Your task to perform on an android device: toggle notification dots Image 0: 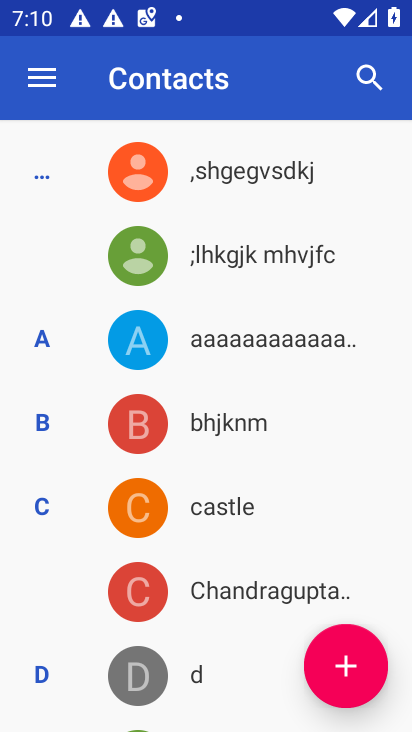
Step 0: press home button
Your task to perform on an android device: toggle notification dots Image 1: 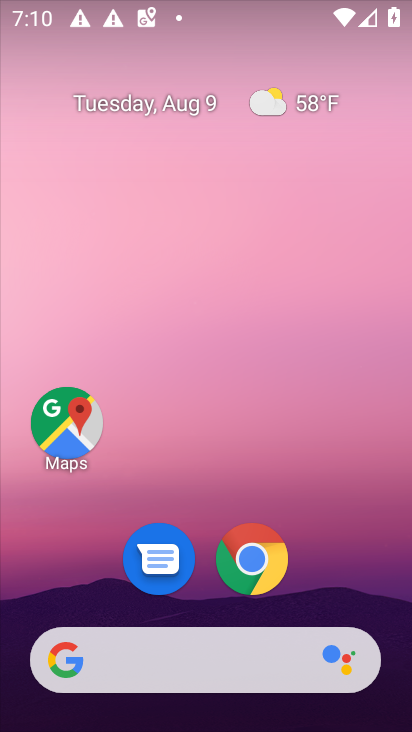
Step 1: drag from (193, 534) to (203, 81)
Your task to perform on an android device: toggle notification dots Image 2: 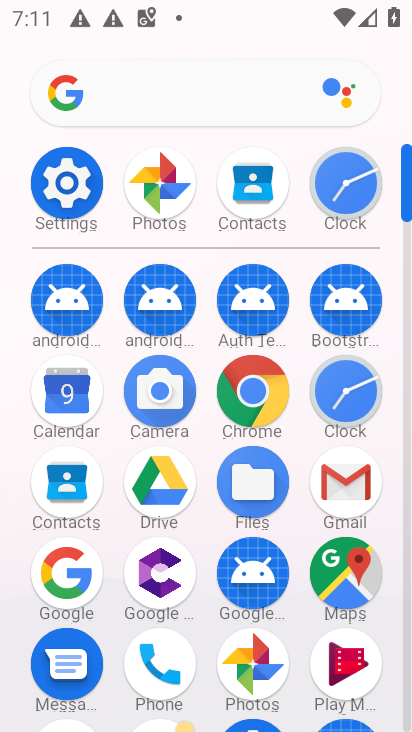
Step 2: click (62, 181)
Your task to perform on an android device: toggle notification dots Image 3: 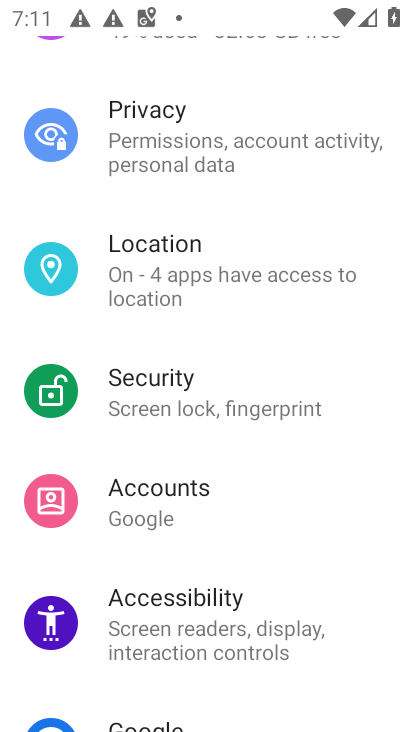
Step 3: drag from (223, 290) to (176, 731)
Your task to perform on an android device: toggle notification dots Image 4: 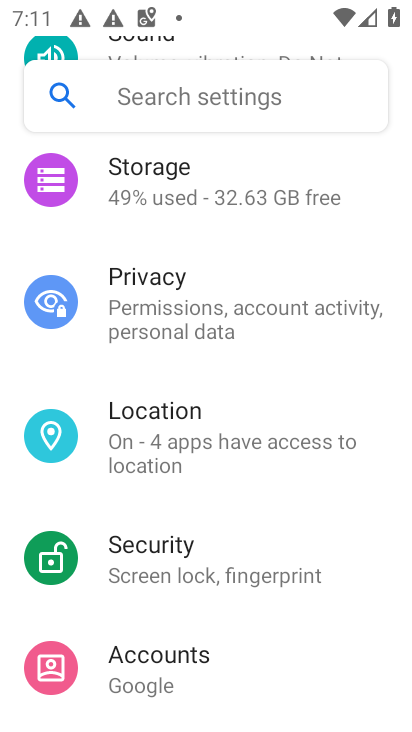
Step 4: drag from (253, 281) to (212, 550)
Your task to perform on an android device: toggle notification dots Image 5: 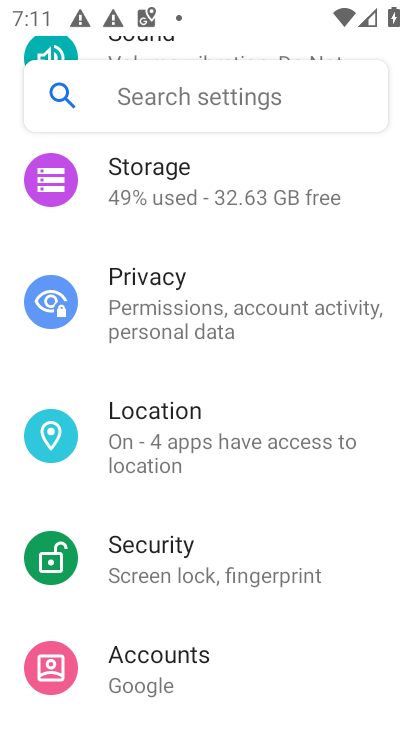
Step 5: drag from (236, 260) to (178, 571)
Your task to perform on an android device: toggle notification dots Image 6: 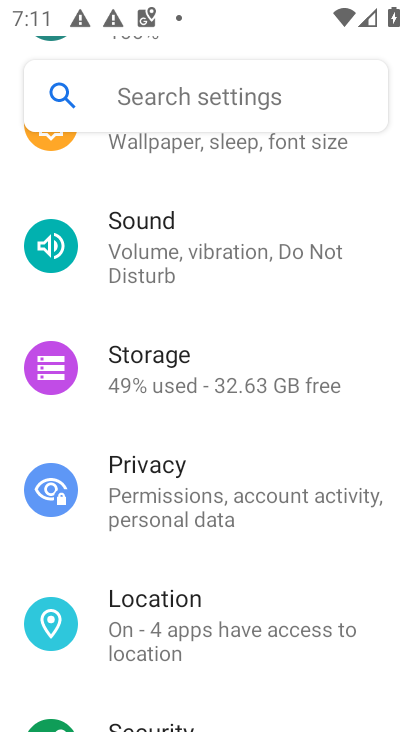
Step 6: drag from (252, 208) to (196, 542)
Your task to perform on an android device: toggle notification dots Image 7: 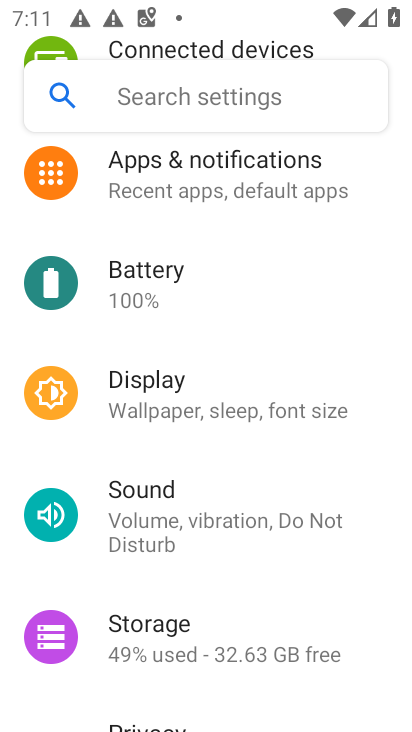
Step 7: click (171, 179)
Your task to perform on an android device: toggle notification dots Image 8: 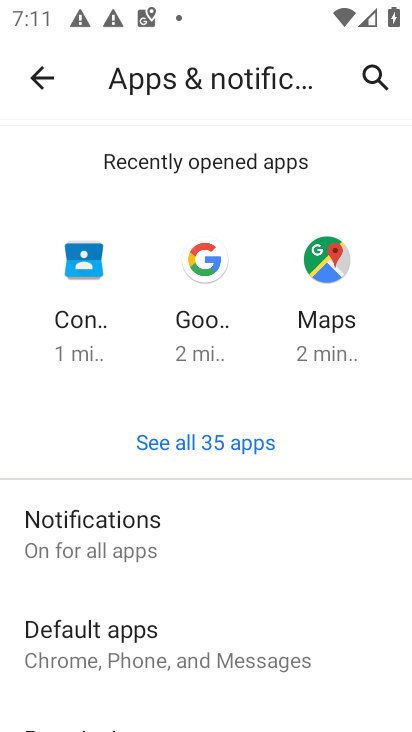
Step 8: click (131, 527)
Your task to perform on an android device: toggle notification dots Image 9: 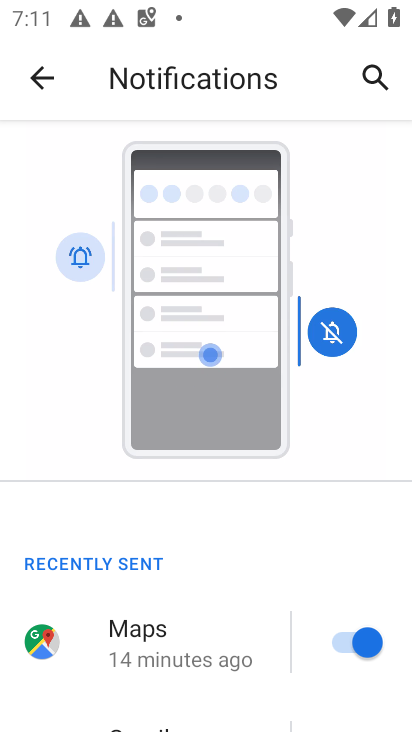
Step 9: click (216, 277)
Your task to perform on an android device: toggle notification dots Image 10: 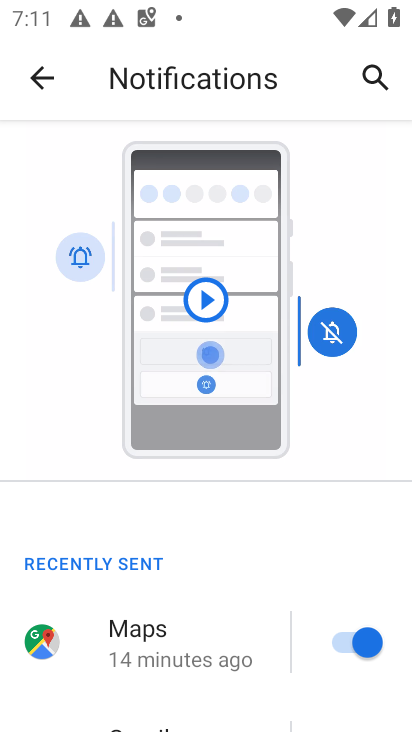
Step 10: drag from (204, 664) to (224, 343)
Your task to perform on an android device: toggle notification dots Image 11: 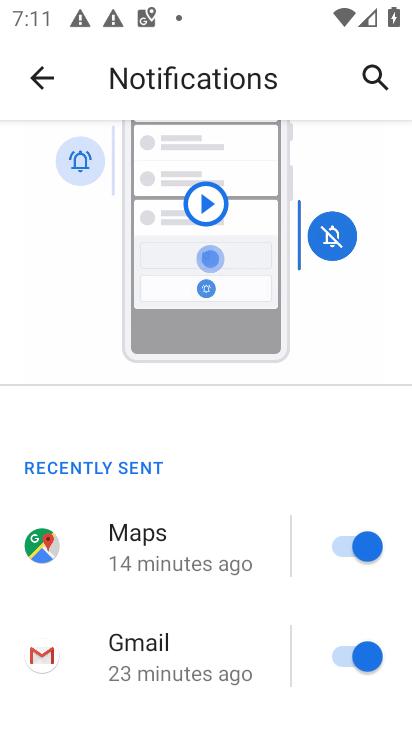
Step 11: drag from (177, 575) to (188, 323)
Your task to perform on an android device: toggle notification dots Image 12: 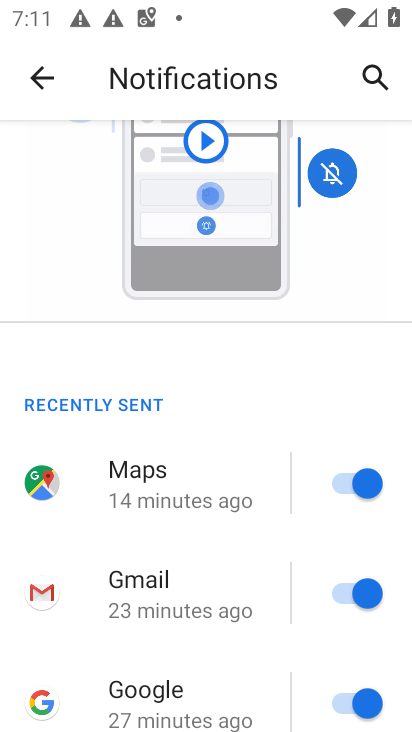
Step 12: drag from (189, 623) to (250, 97)
Your task to perform on an android device: toggle notification dots Image 13: 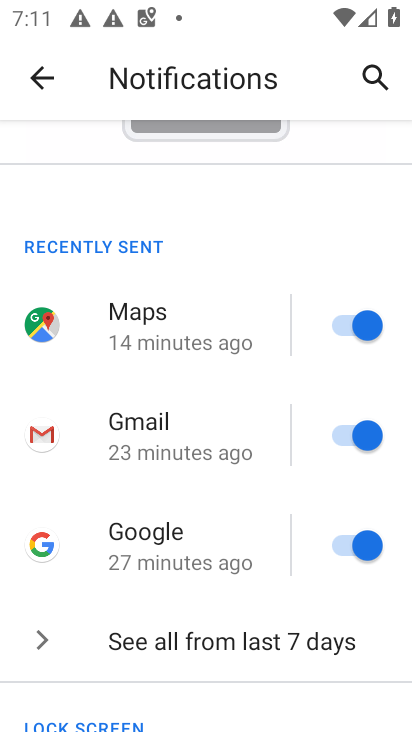
Step 13: drag from (194, 552) to (224, 213)
Your task to perform on an android device: toggle notification dots Image 14: 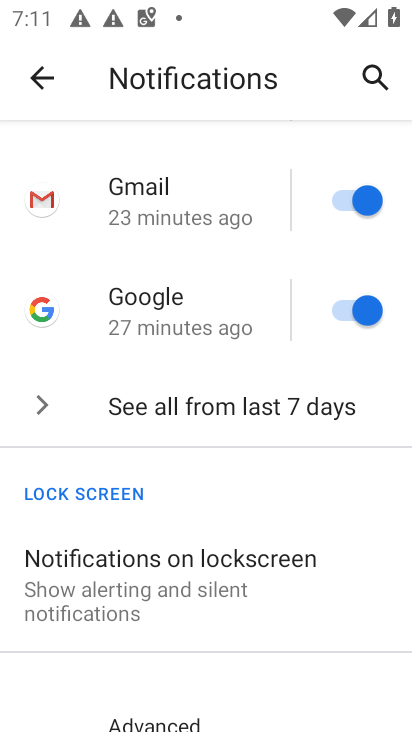
Step 14: drag from (181, 552) to (182, 355)
Your task to perform on an android device: toggle notification dots Image 15: 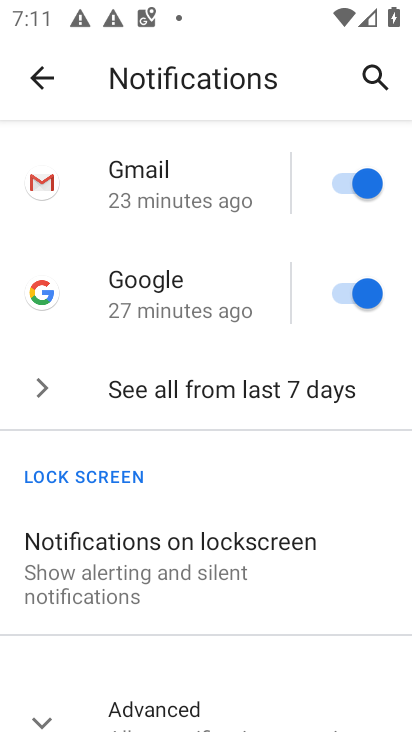
Step 15: drag from (189, 448) to (189, 383)
Your task to perform on an android device: toggle notification dots Image 16: 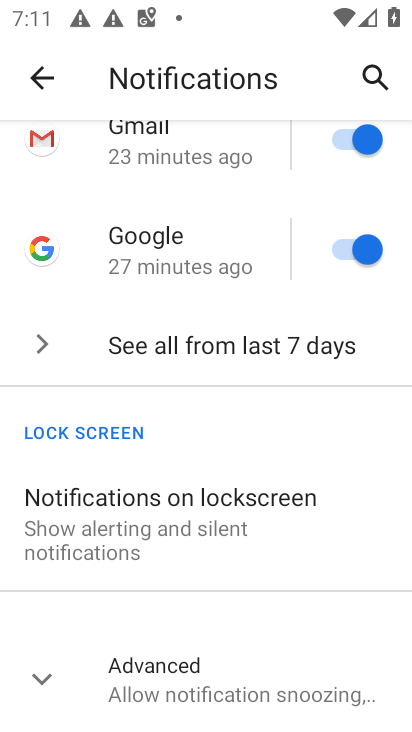
Step 16: drag from (134, 530) to (189, 204)
Your task to perform on an android device: toggle notification dots Image 17: 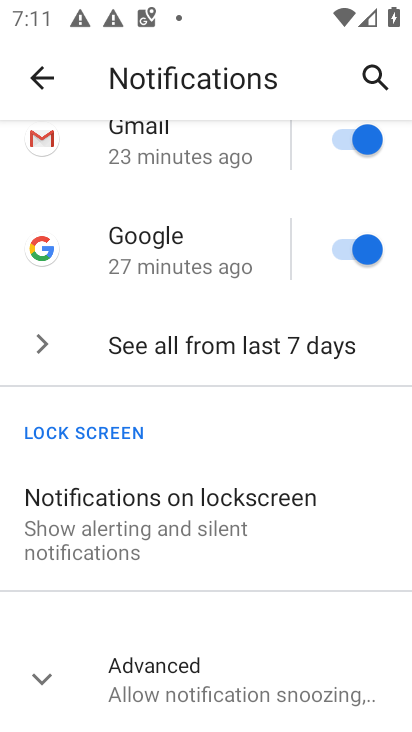
Step 17: click (143, 676)
Your task to perform on an android device: toggle notification dots Image 18: 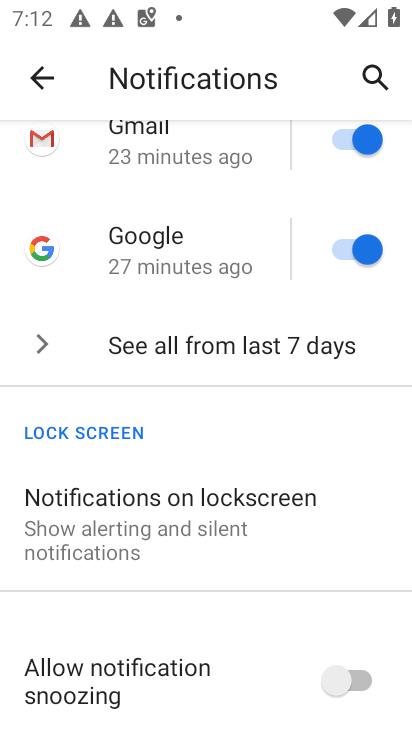
Step 18: drag from (257, 619) to (254, 351)
Your task to perform on an android device: toggle notification dots Image 19: 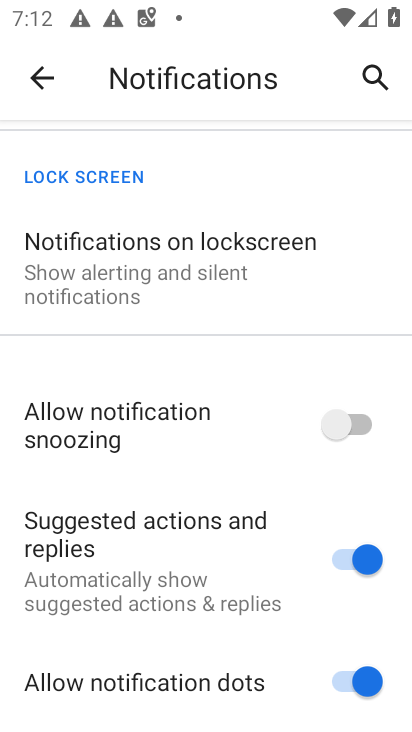
Step 19: click (335, 675)
Your task to perform on an android device: toggle notification dots Image 20: 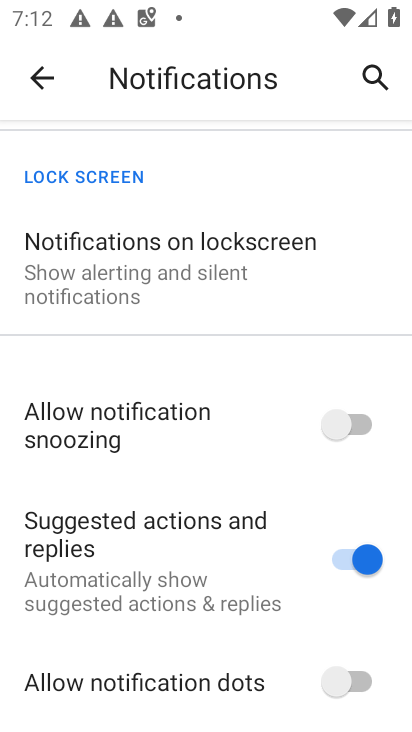
Step 20: task complete